Your task to perform on an android device: Open location settings Image 0: 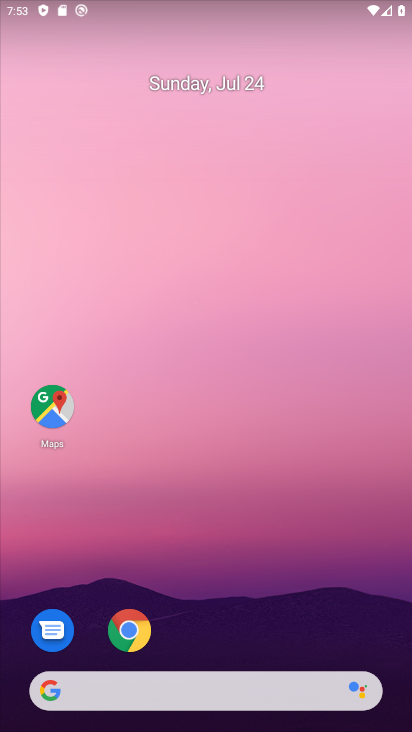
Step 0: drag from (281, 496) to (336, 56)
Your task to perform on an android device: Open location settings Image 1: 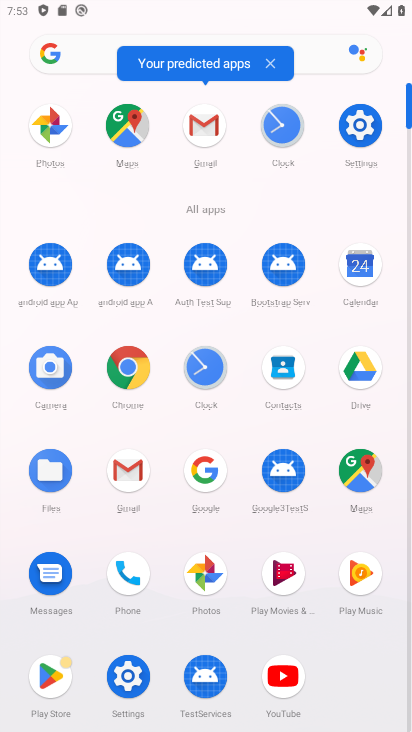
Step 1: click (364, 128)
Your task to perform on an android device: Open location settings Image 2: 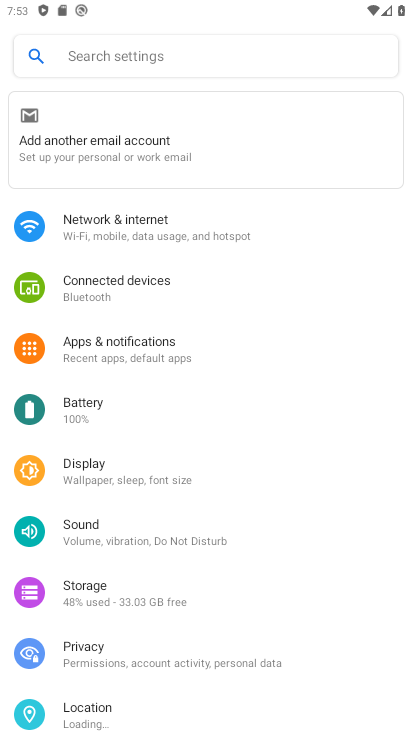
Step 2: click (145, 365)
Your task to perform on an android device: Open location settings Image 3: 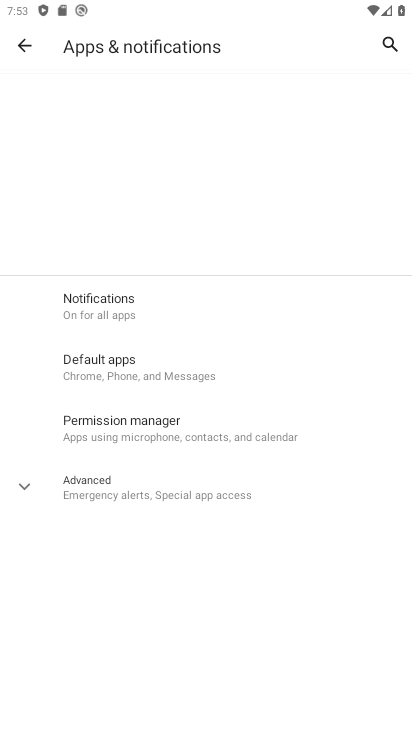
Step 3: click (13, 46)
Your task to perform on an android device: Open location settings Image 4: 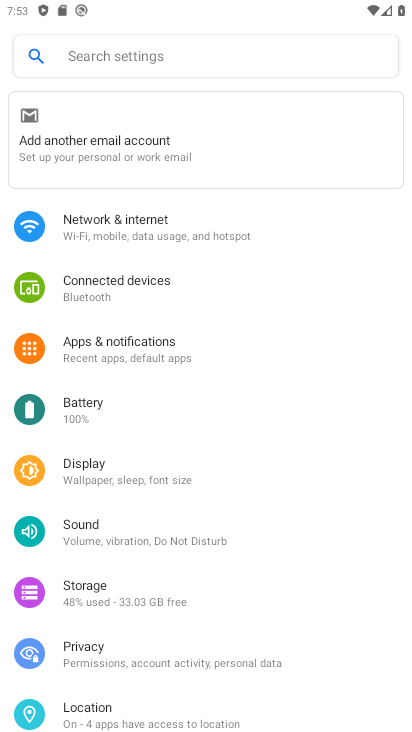
Step 4: click (114, 472)
Your task to perform on an android device: Open location settings Image 5: 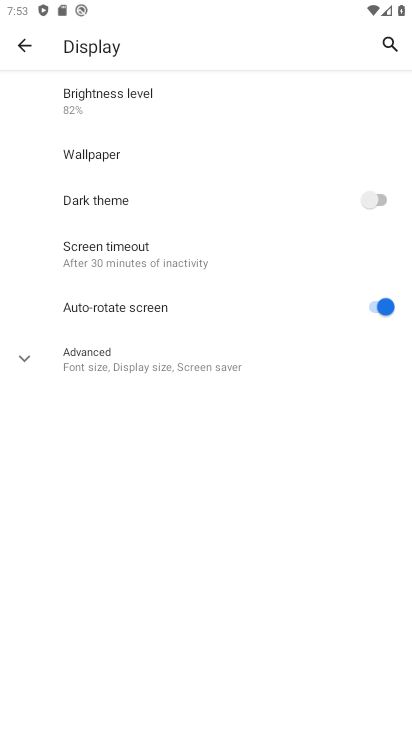
Step 5: click (137, 362)
Your task to perform on an android device: Open location settings Image 6: 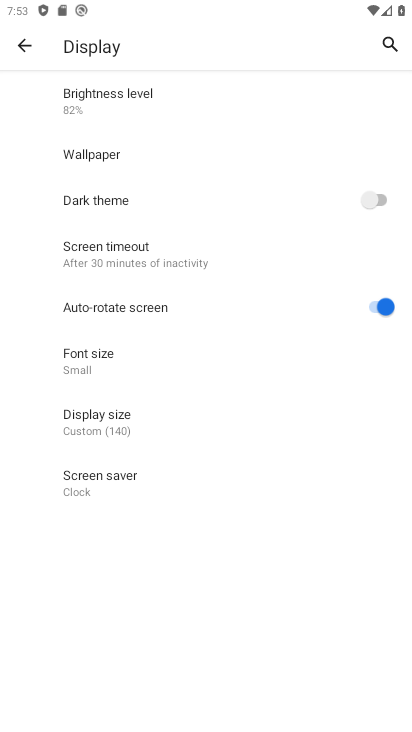
Step 6: click (122, 430)
Your task to perform on an android device: Open location settings Image 7: 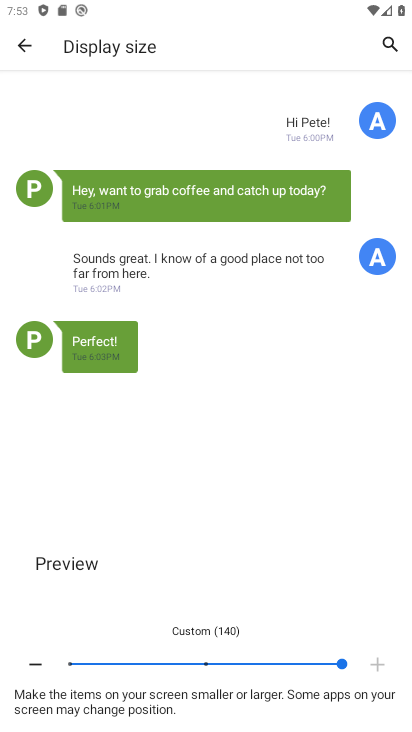
Step 7: click (205, 662)
Your task to perform on an android device: Open location settings Image 8: 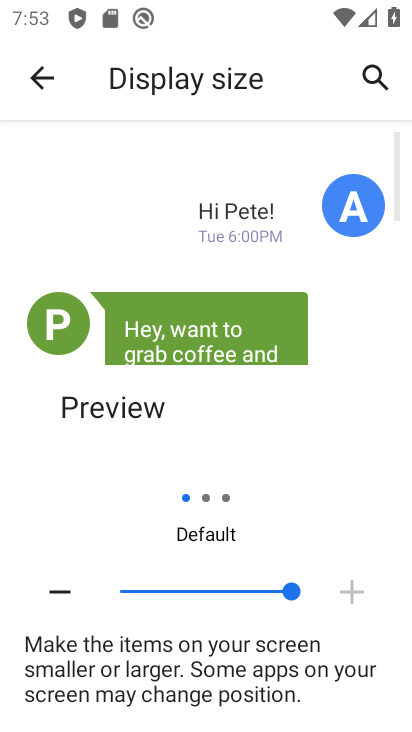
Step 8: click (46, 67)
Your task to perform on an android device: Open location settings Image 9: 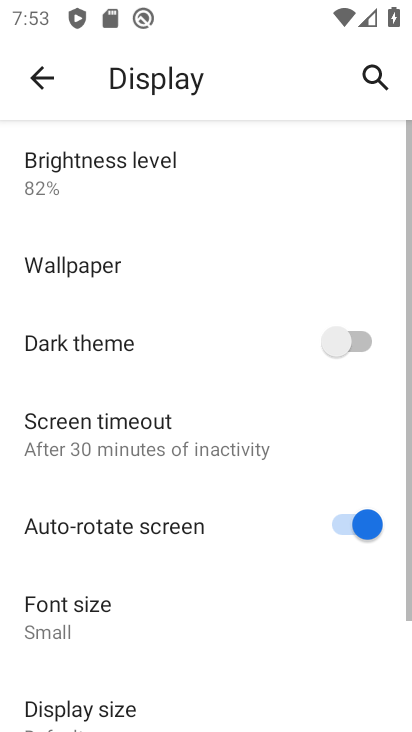
Step 9: click (45, 67)
Your task to perform on an android device: Open location settings Image 10: 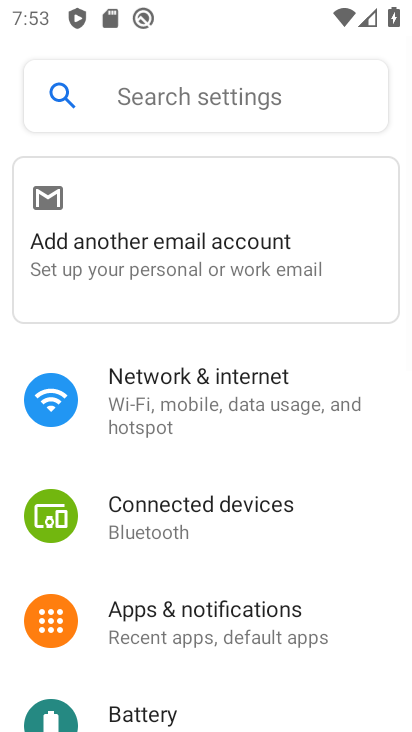
Step 10: drag from (189, 661) to (225, 71)
Your task to perform on an android device: Open location settings Image 11: 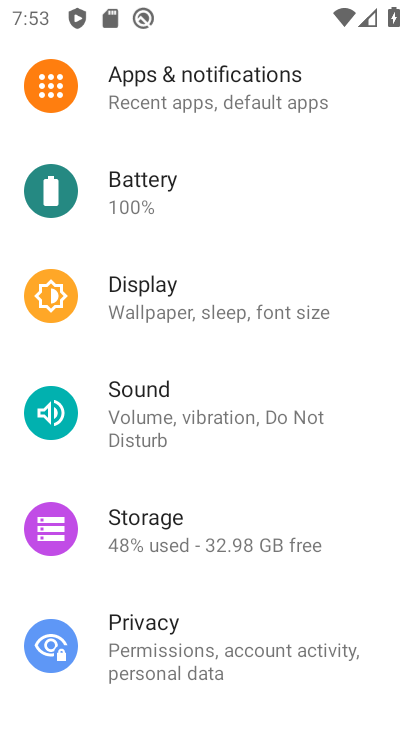
Step 11: drag from (158, 626) to (204, 275)
Your task to perform on an android device: Open location settings Image 12: 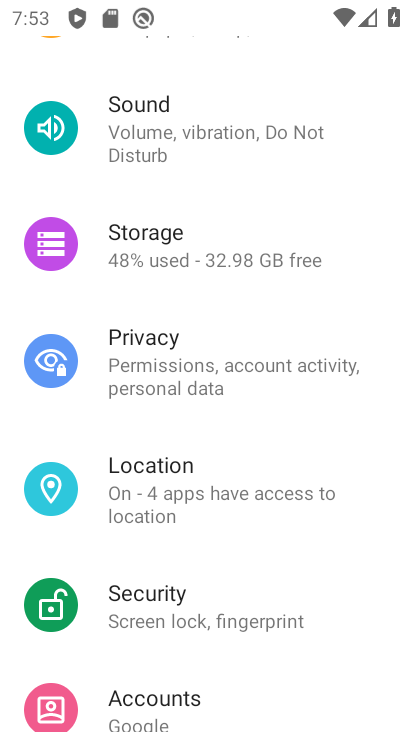
Step 12: click (147, 479)
Your task to perform on an android device: Open location settings Image 13: 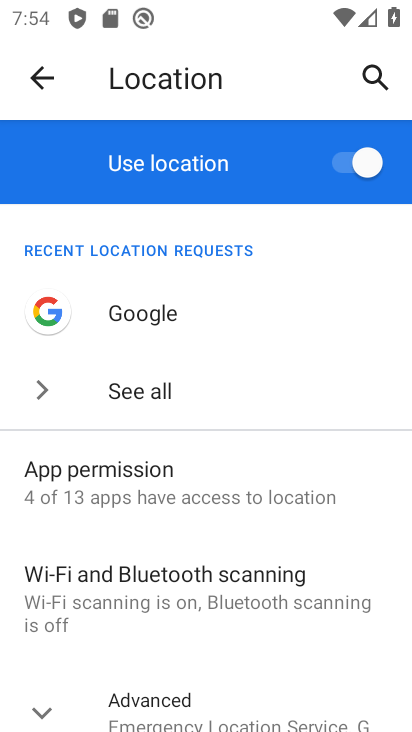
Step 13: task complete